Your task to perform on an android device: Open Google Chrome Image 0: 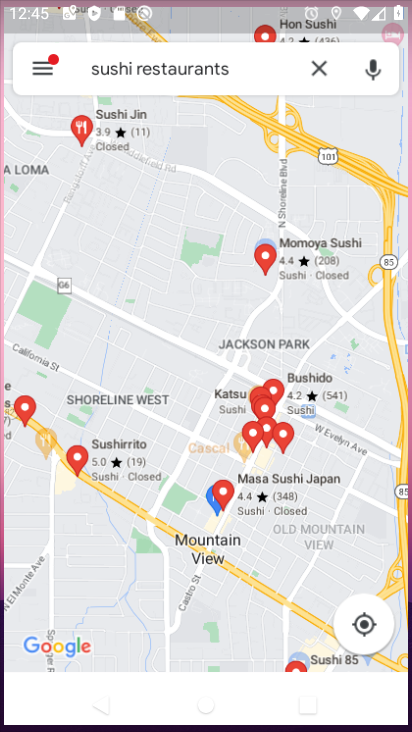
Step 0: click (68, 247)
Your task to perform on an android device: Open Google Chrome Image 1: 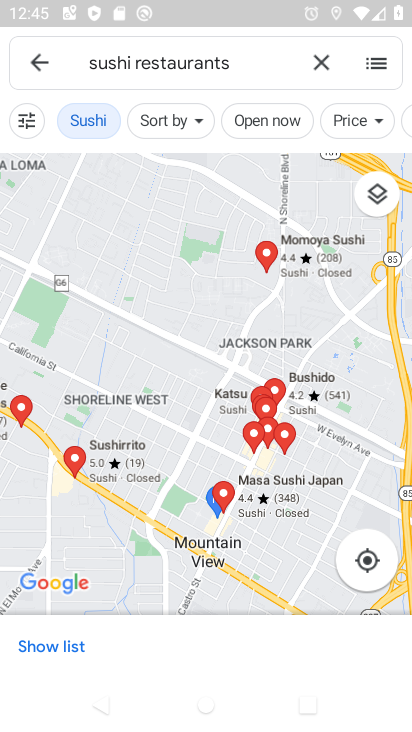
Step 1: press home button
Your task to perform on an android device: Open Google Chrome Image 2: 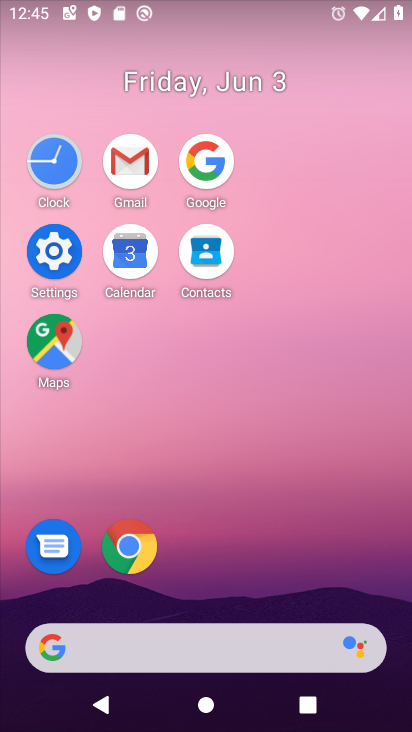
Step 2: click (124, 567)
Your task to perform on an android device: Open Google Chrome Image 3: 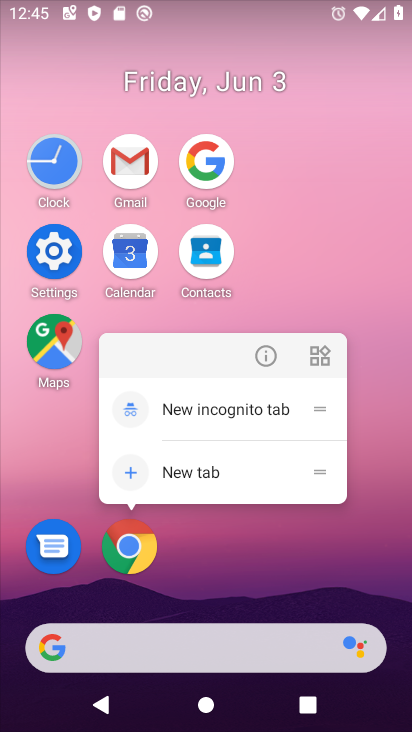
Step 3: click (142, 558)
Your task to perform on an android device: Open Google Chrome Image 4: 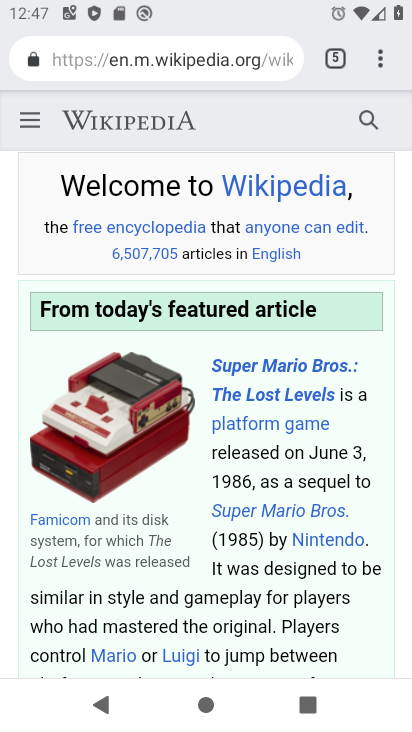
Step 4: task complete